Your task to perform on an android device: snooze an email in the gmail app Image 0: 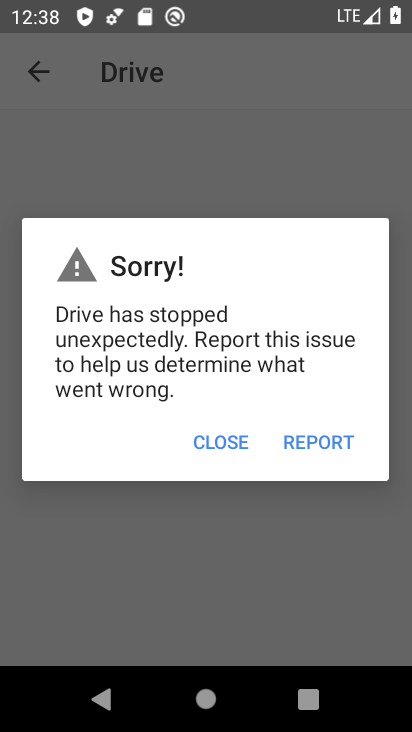
Step 0: press back button
Your task to perform on an android device: snooze an email in the gmail app Image 1: 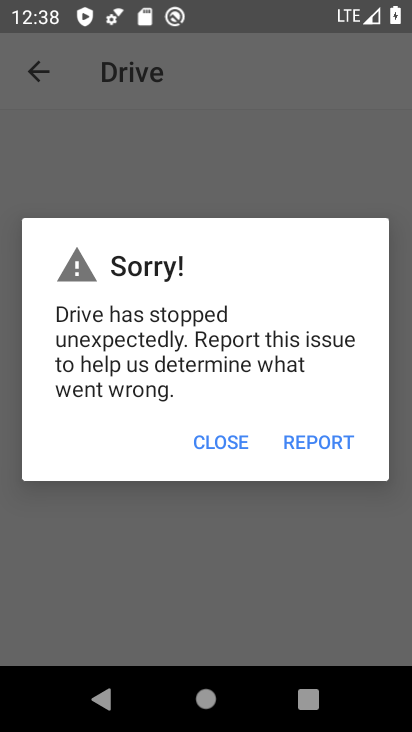
Step 1: press home button
Your task to perform on an android device: snooze an email in the gmail app Image 2: 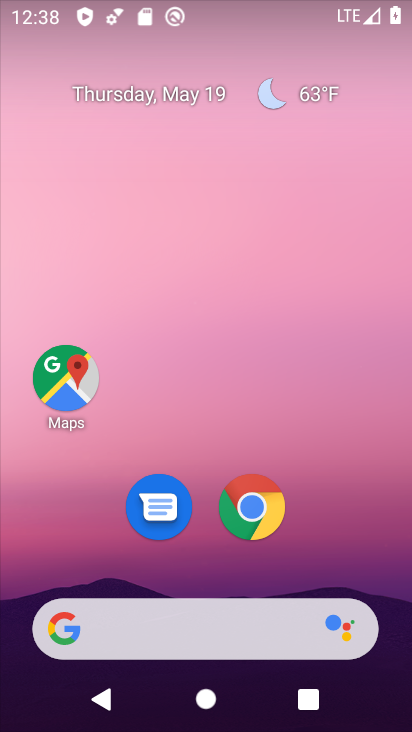
Step 2: drag from (211, 601) to (242, 261)
Your task to perform on an android device: snooze an email in the gmail app Image 3: 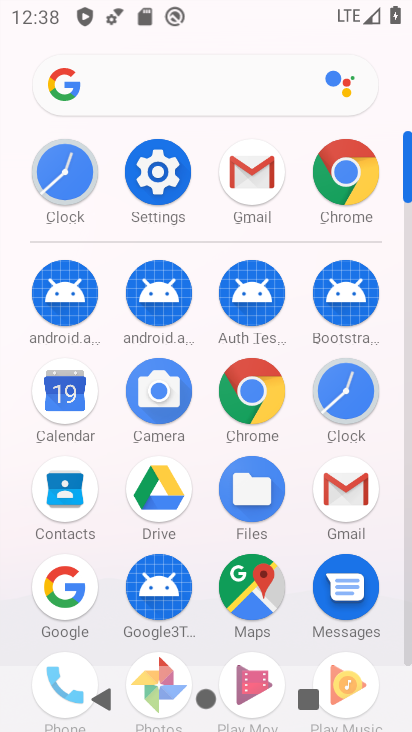
Step 3: click (260, 175)
Your task to perform on an android device: snooze an email in the gmail app Image 4: 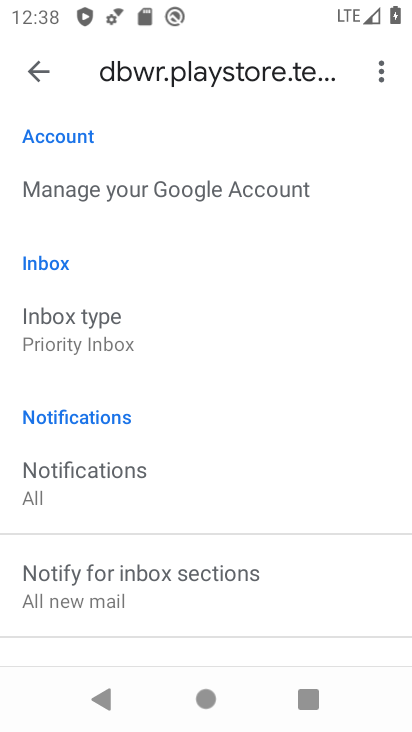
Step 4: click (35, 66)
Your task to perform on an android device: snooze an email in the gmail app Image 5: 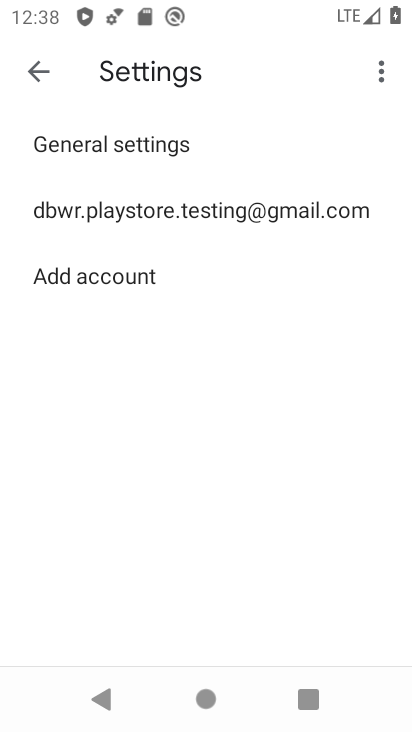
Step 5: click (26, 70)
Your task to perform on an android device: snooze an email in the gmail app Image 6: 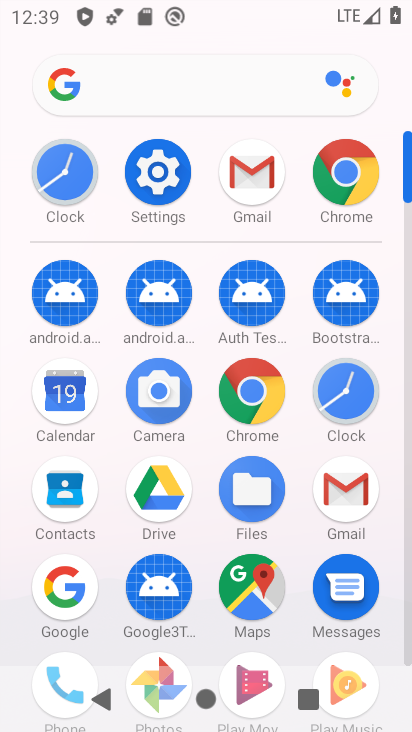
Step 6: click (247, 178)
Your task to perform on an android device: snooze an email in the gmail app Image 7: 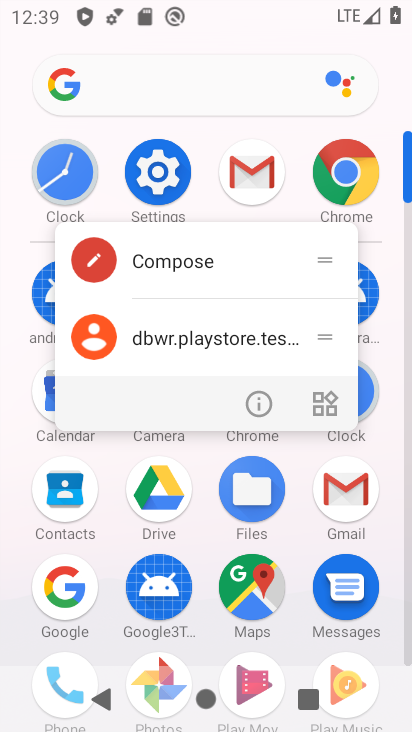
Step 7: click (227, 172)
Your task to perform on an android device: snooze an email in the gmail app Image 8: 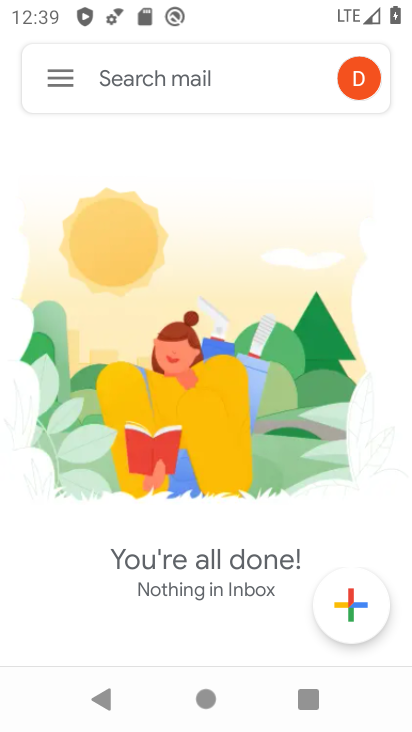
Step 8: click (61, 98)
Your task to perform on an android device: snooze an email in the gmail app Image 9: 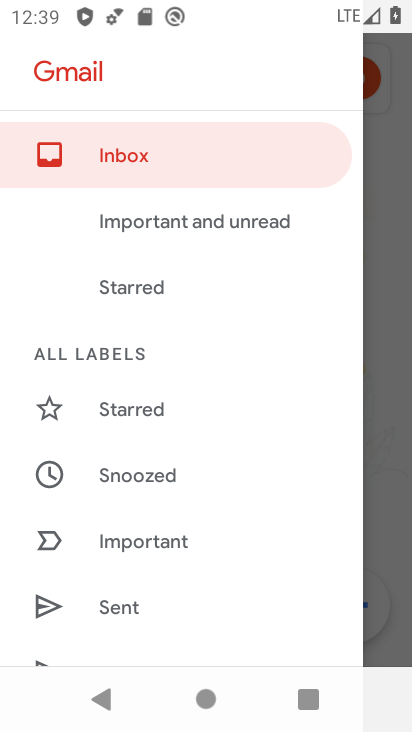
Step 9: click (150, 476)
Your task to perform on an android device: snooze an email in the gmail app Image 10: 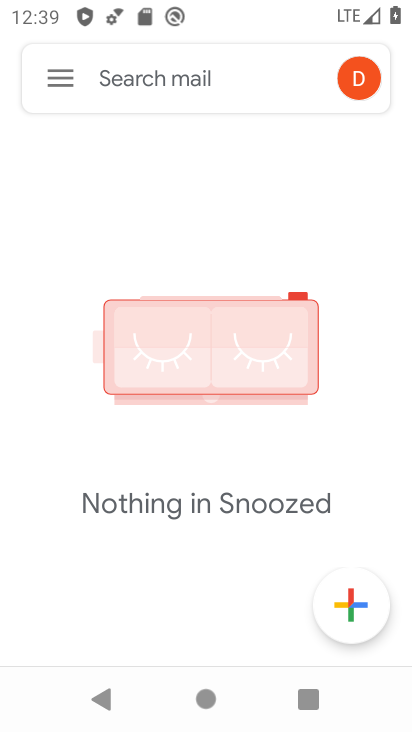
Step 10: task complete